Your task to perform on an android device: Show me the alarms in the clock app Image 0: 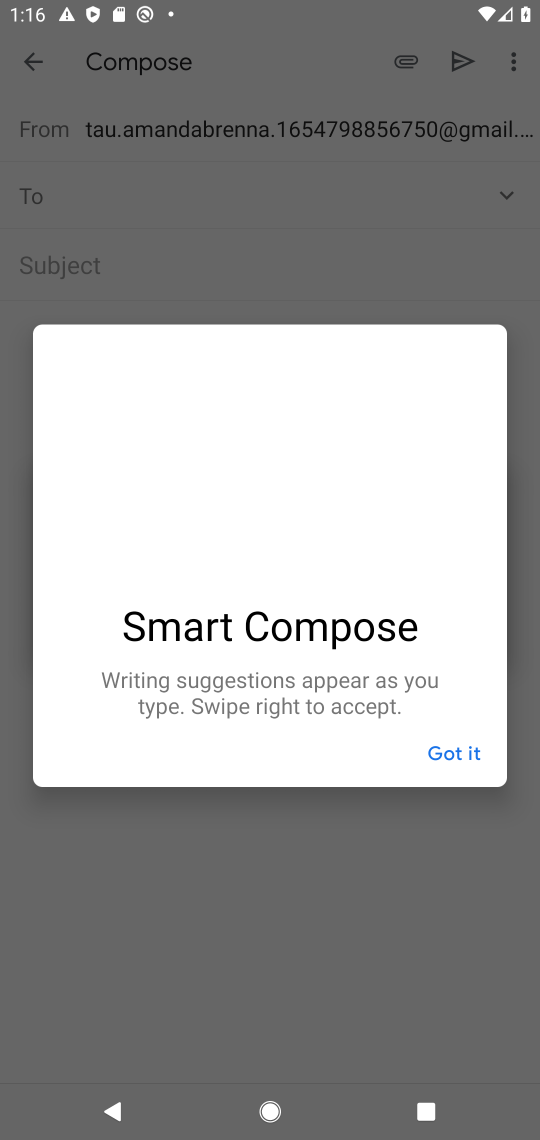
Step 0: press home button
Your task to perform on an android device: Show me the alarms in the clock app Image 1: 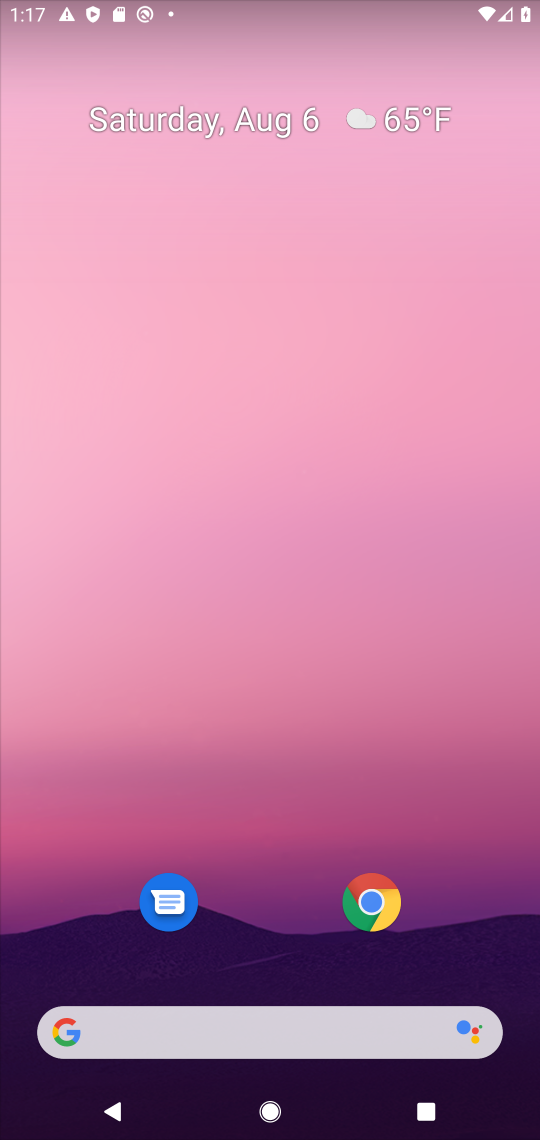
Step 1: drag from (279, 925) to (229, 389)
Your task to perform on an android device: Show me the alarms in the clock app Image 2: 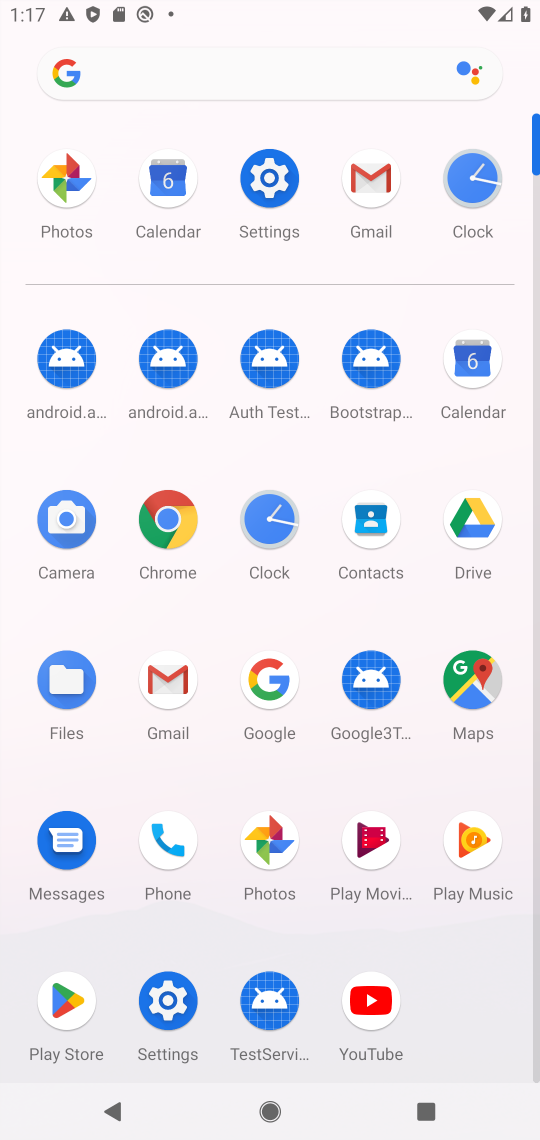
Step 2: click (464, 170)
Your task to perform on an android device: Show me the alarms in the clock app Image 3: 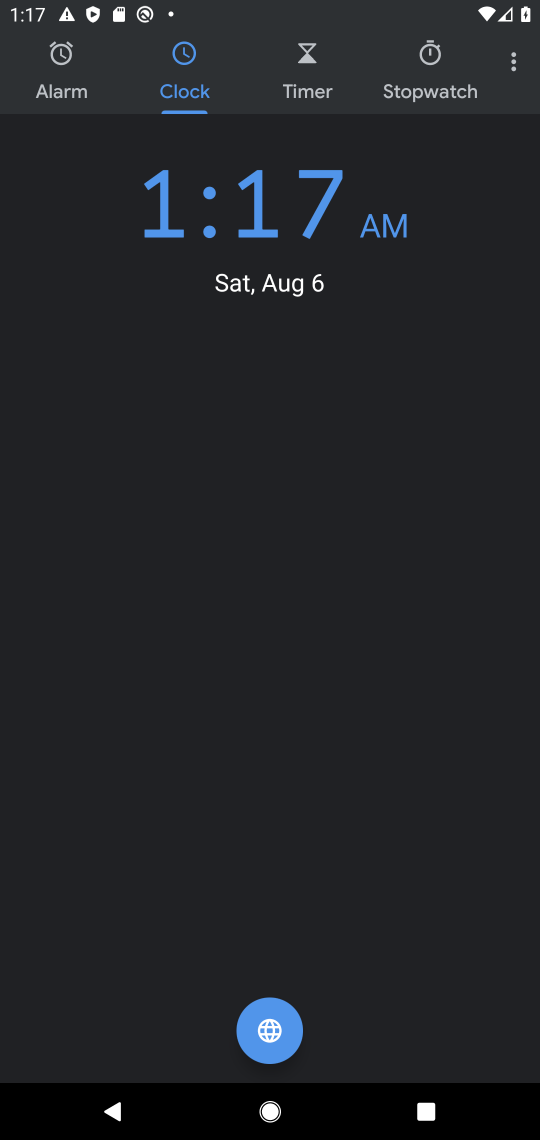
Step 3: click (55, 58)
Your task to perform on an android device: Show me the alarms in the clock app Image 4: 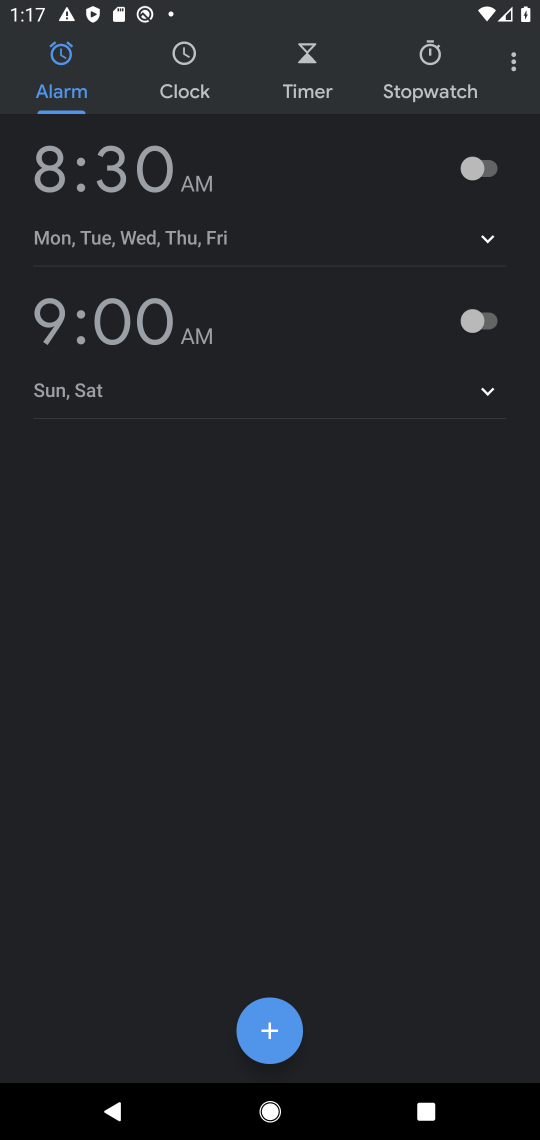
Step 4: task complete